Your task to perform on an android device: Go to Amazon Image 0: 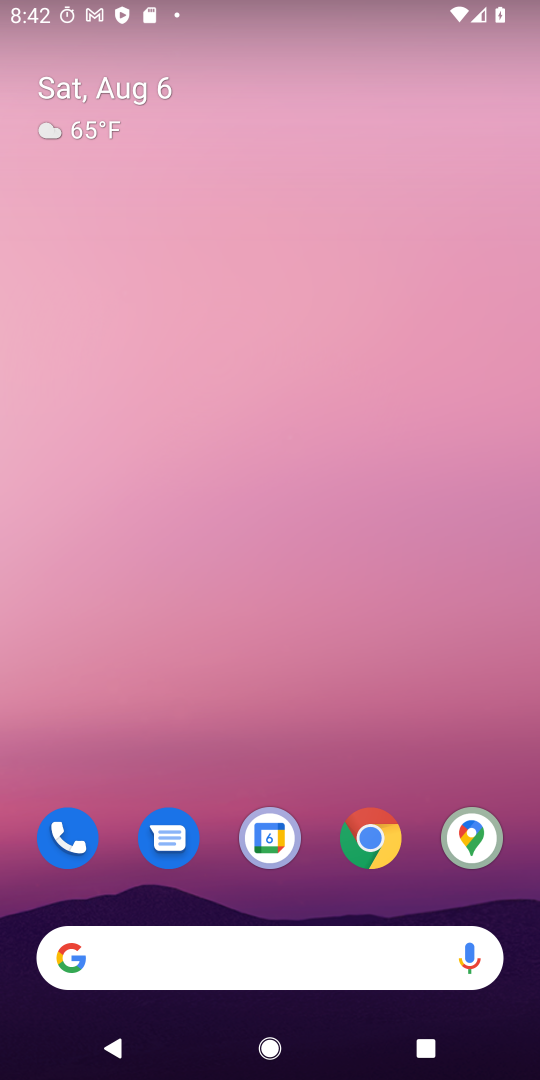
Step 0: click (381, 842)
Your task to perform on an android device: Go to Amazon Image 1: 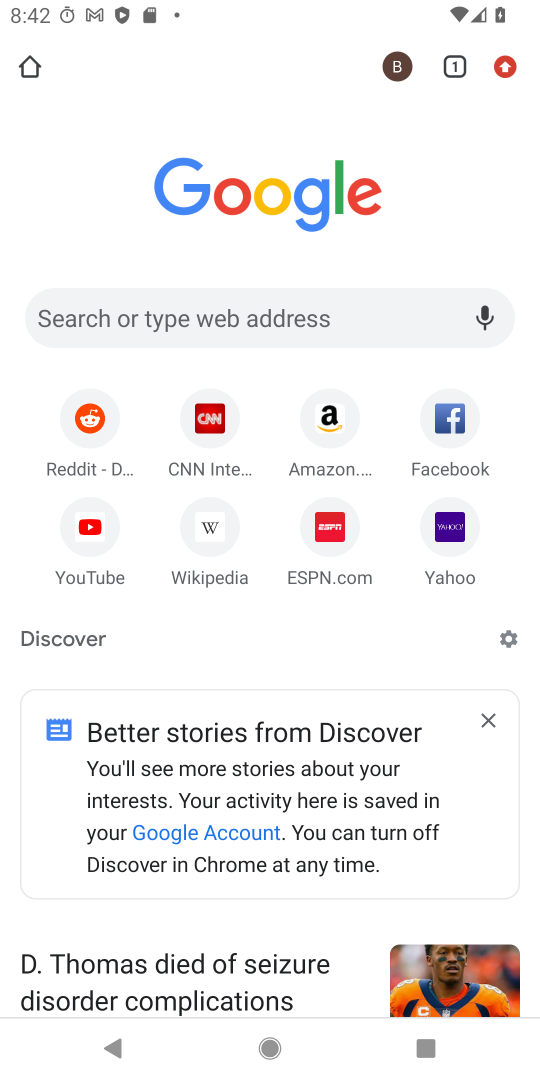
Step 1: click (316, 446)
Your task to perform on an android device: Go to Amazon Image 2: 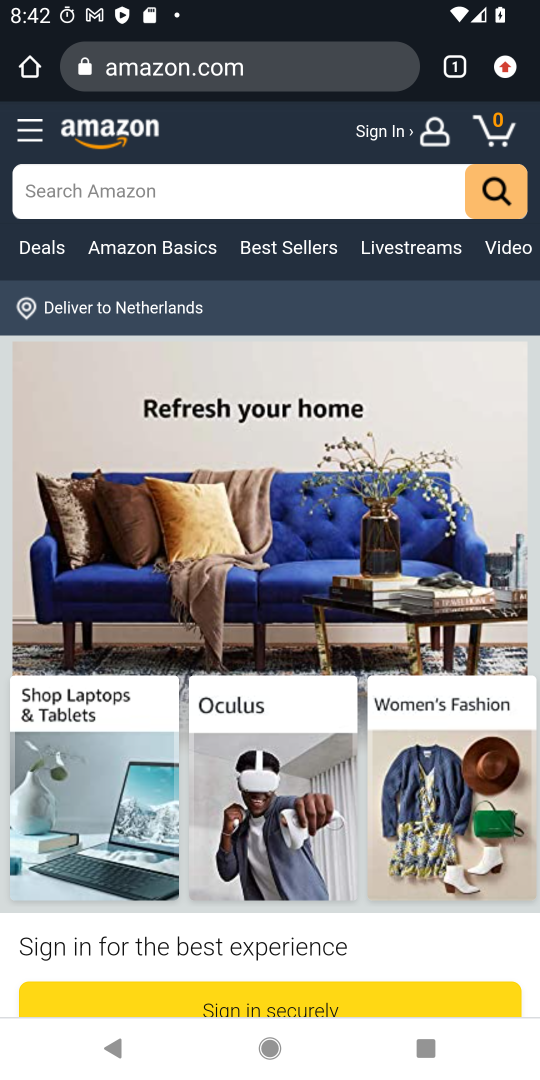
Step 2: task complete